Your task to perform on an android device: Open notification settings Image 0: 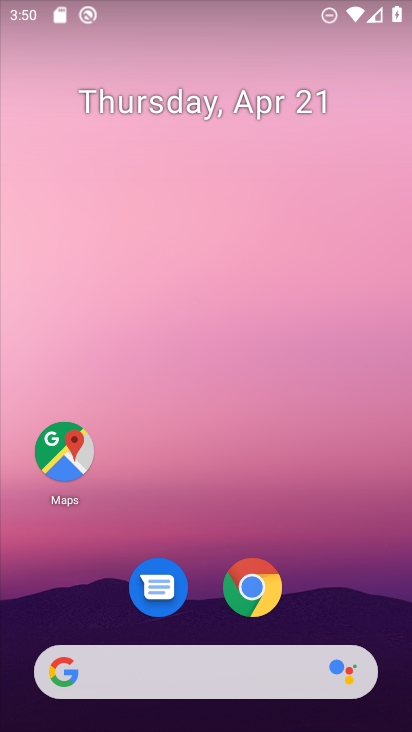
Step 0: drag from (390, 604) to (411, 54)
Your task to perform on an android device: Open notification settings Image 1: 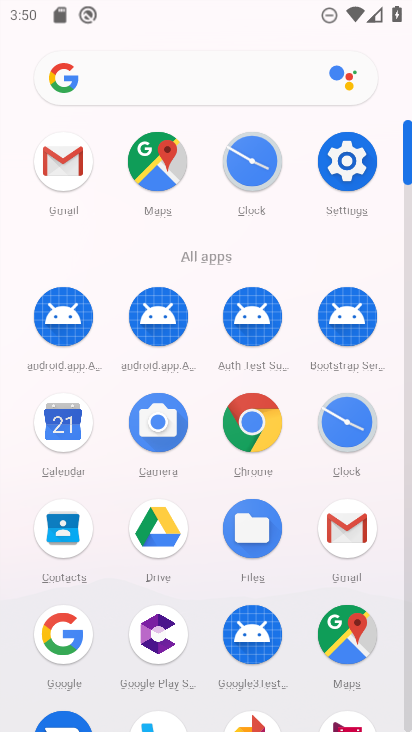
Step 1: click (346, 164)
Your task to perform on an android device: Open notification settings Image 2: 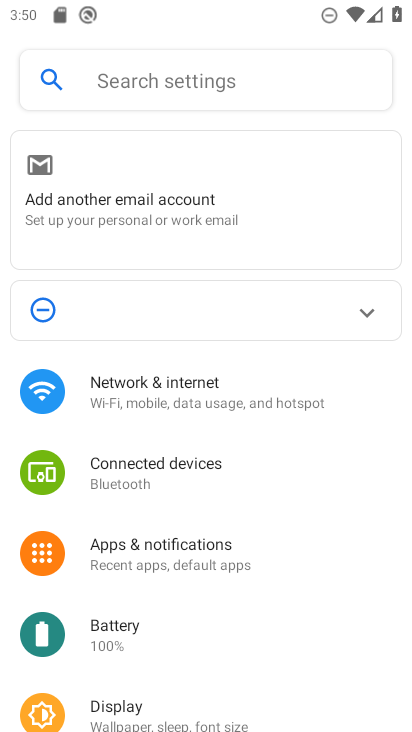
Step 2: click (166, 551)
Your task to perform on an android device: Open notification settings Image 3: 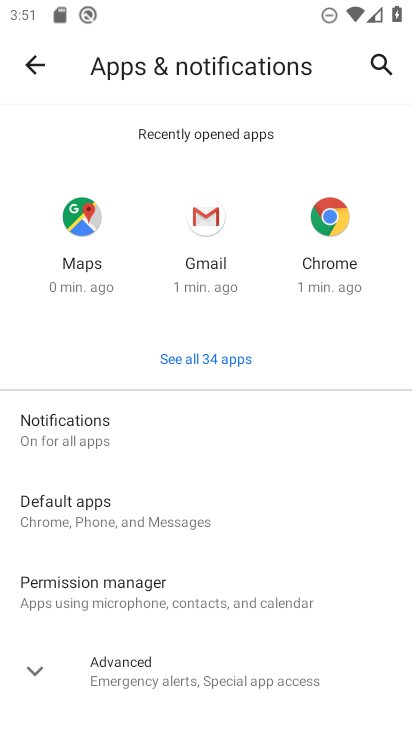
Step 3: task complete